Your task to perform on an android device: Go to CNN.com Image 0: 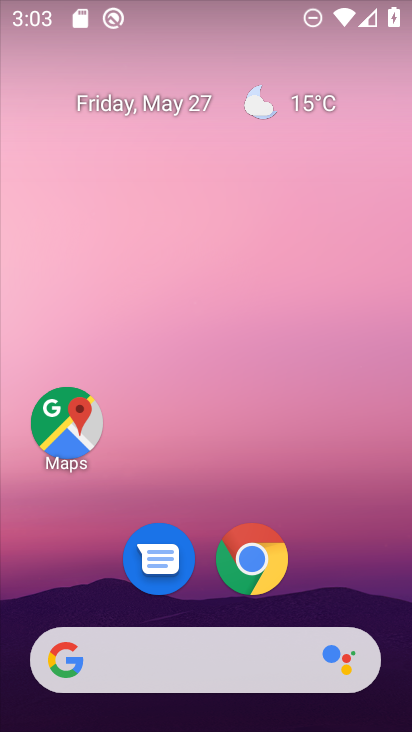
Step 0: drag from (141, 609) to (252, 15)
Your task to perform on an android device: Go to CNN.com Image 1: 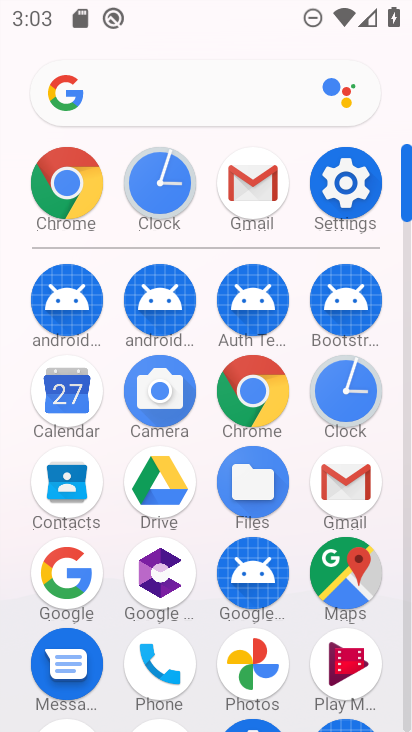
Step 1: click (250, 370)
Your task to perform on an android device: Go to CNN.com Image 2: 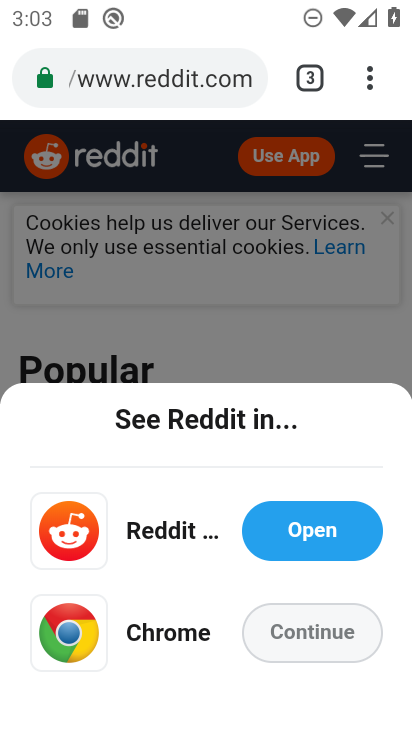
Step 2: click (219, 77)
Your task to perform on an android device: Go to CNN.com Image 3: 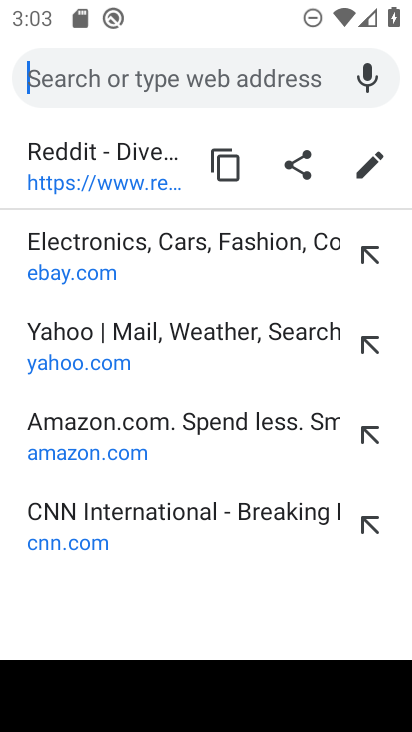
Step 3: type "cnn.com"
Your task to perform on an android device: Go to CNN.com Image 4: 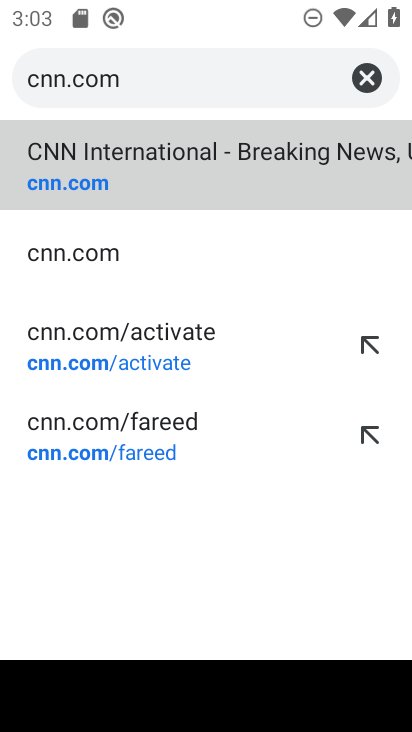
Step 4: click (60, 173)
Your task to perform on an android device: Go to CNN.com Image 5: 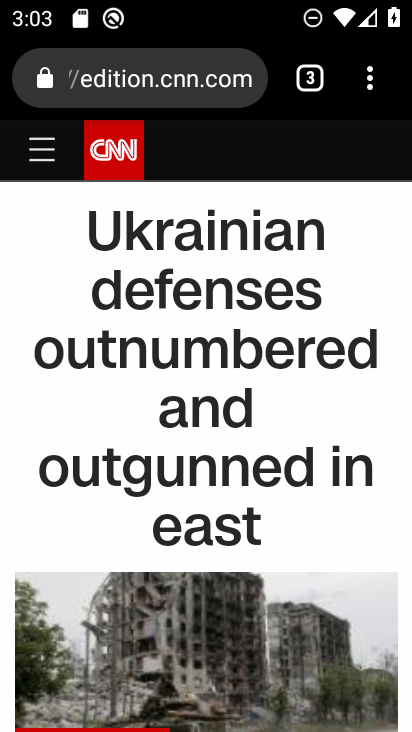
Step 5: task complete